Your task to perform on an android device: Go to battery settings Image 0: 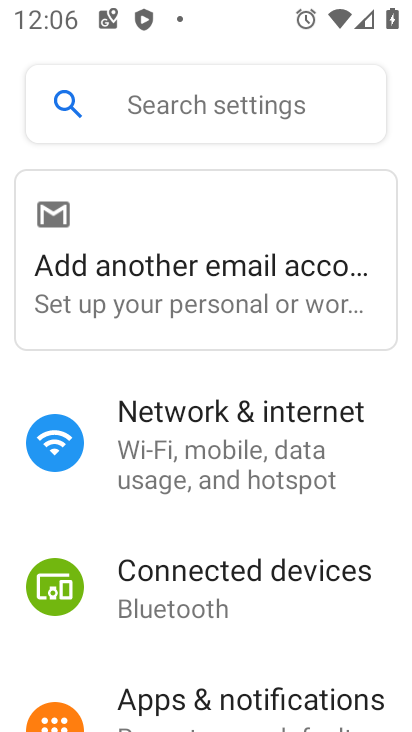
Step 0: drag from (237, 636) to (275, 195)
Your task to perform on an android device: Go to battery settings Image 1: 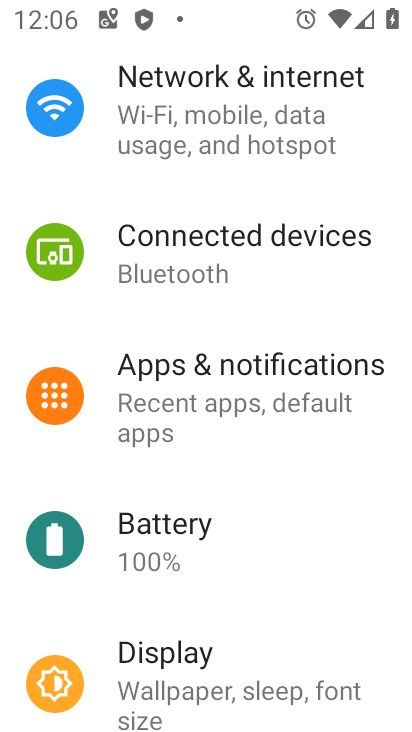
Step 1: click (218, 522)
Your task to perform on an android device: Go to battery settings Image 2: 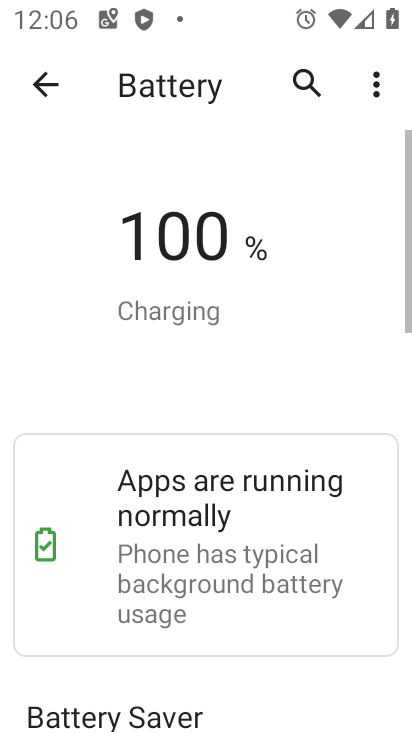
Step 2: task complete